Your task to perform on an android device: delete a single message in the gmail app Image 0: 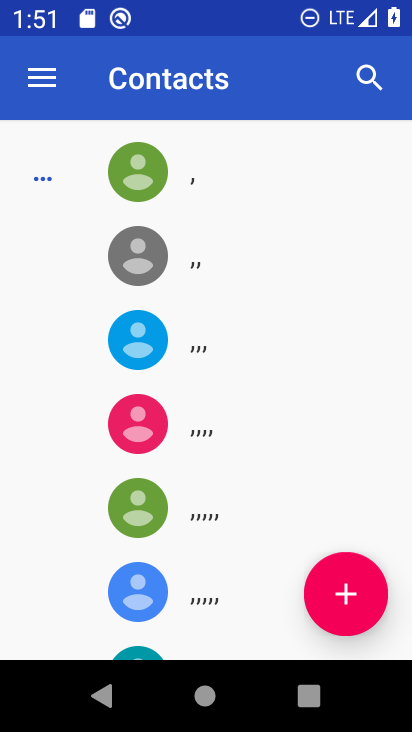
Step 0: press home button
Your task to perform on an android device: delete a single message in the gmail app Image 1: 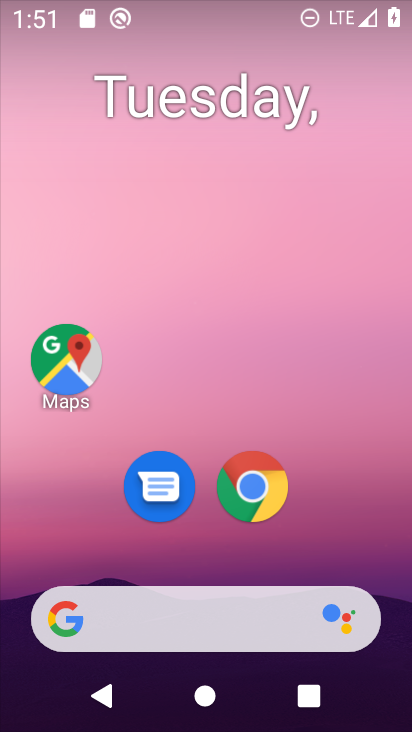
Step 1: drag from (206, 563) to (268, 121)
Your task to perform on an android device: delete a single message in the gmail app Image 2: 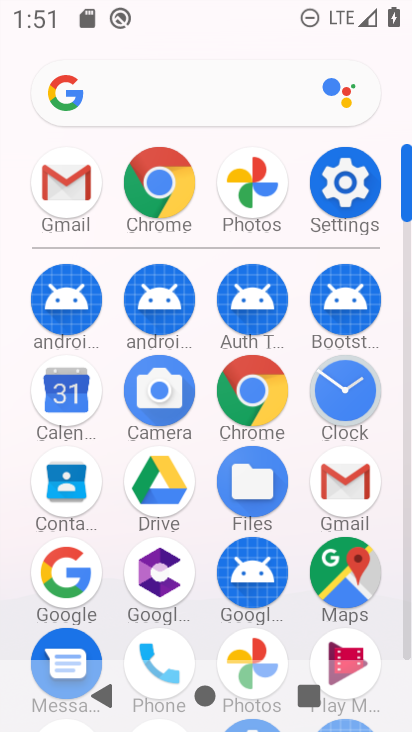
Step 2: drag from (205, 252) to (205, 6)
Your task to perform on an android device: delete a single message in the gmail app Image 3: 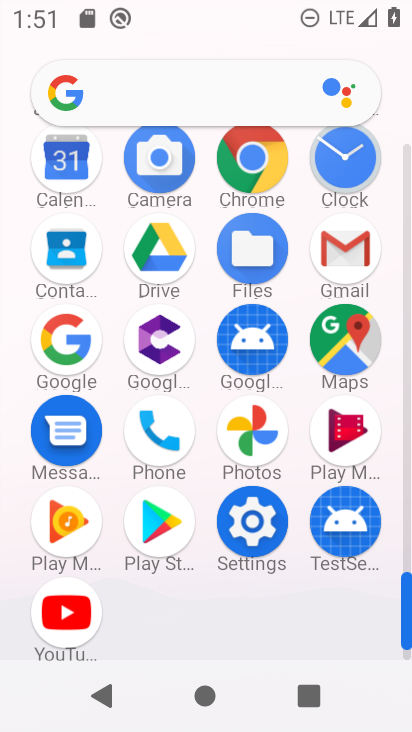
Step 3: click (357, 270)
Your task to perform on an android device: delete a single message in the gmail app Image 4: 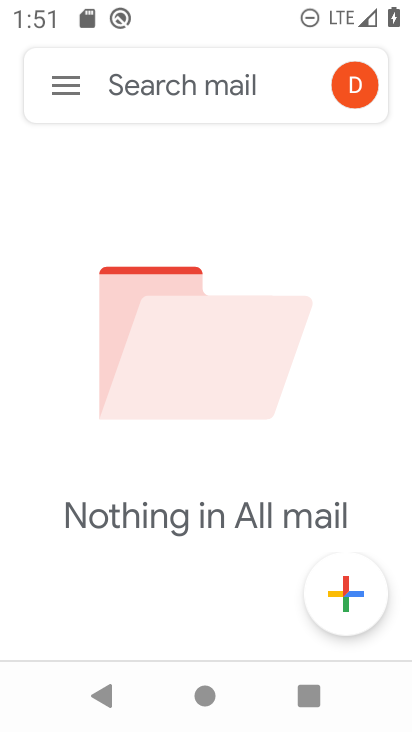
Step 4: click (61, 102)
Your task to perform on an android device: delete a single message in the gmail app Image 5: 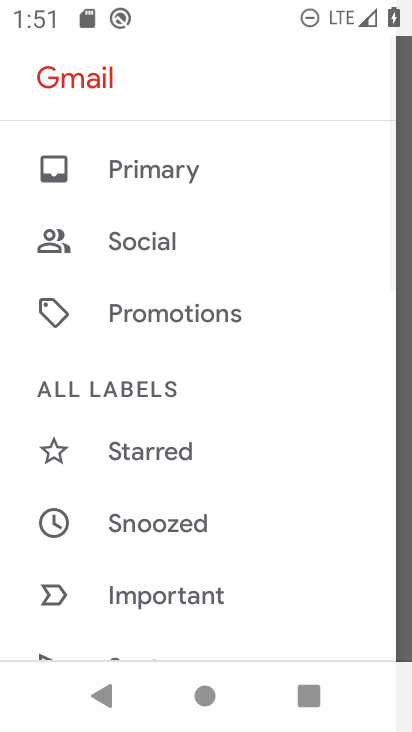
Step 5: drag from (137, 494) to (195, 101)
Your task to perform on an android device: delete a single message in the gmail app Image 6: 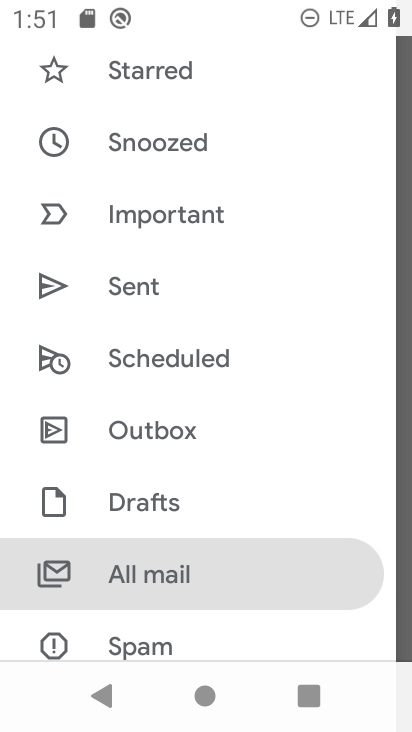
Step 6: click (156, 566)
Your task to perform on an android device: delete a single message in the gmail app Image 7: 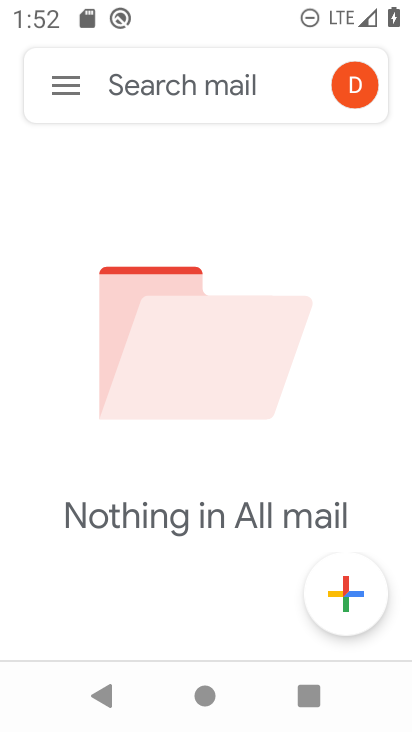
Step 7: click (66, 103)
Your task to perform on an android device: delete a single message in the gmail app Image 8: 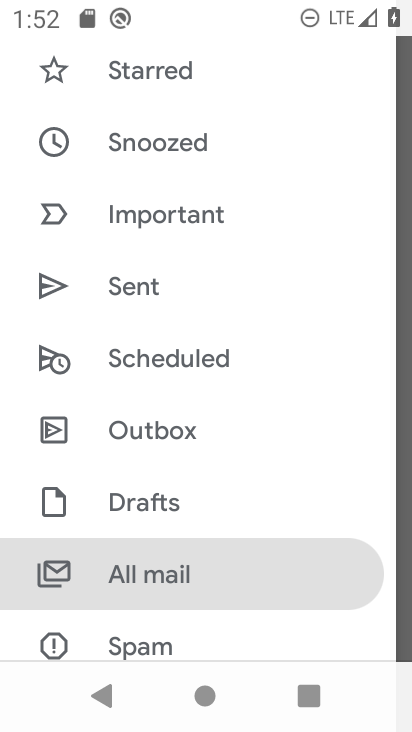
Step 8: click (132, 554)
Your task to perform on an android device: delete a single message in the gmail app Image 9: 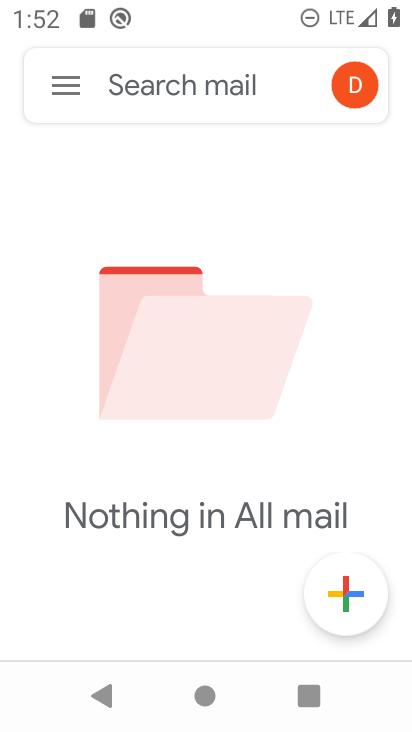
Step 9: task complete